Your task to perform on an android device: Search for "jbl charge 4" on newegg.com, select the first entry, and add it to the cart. Image 0: 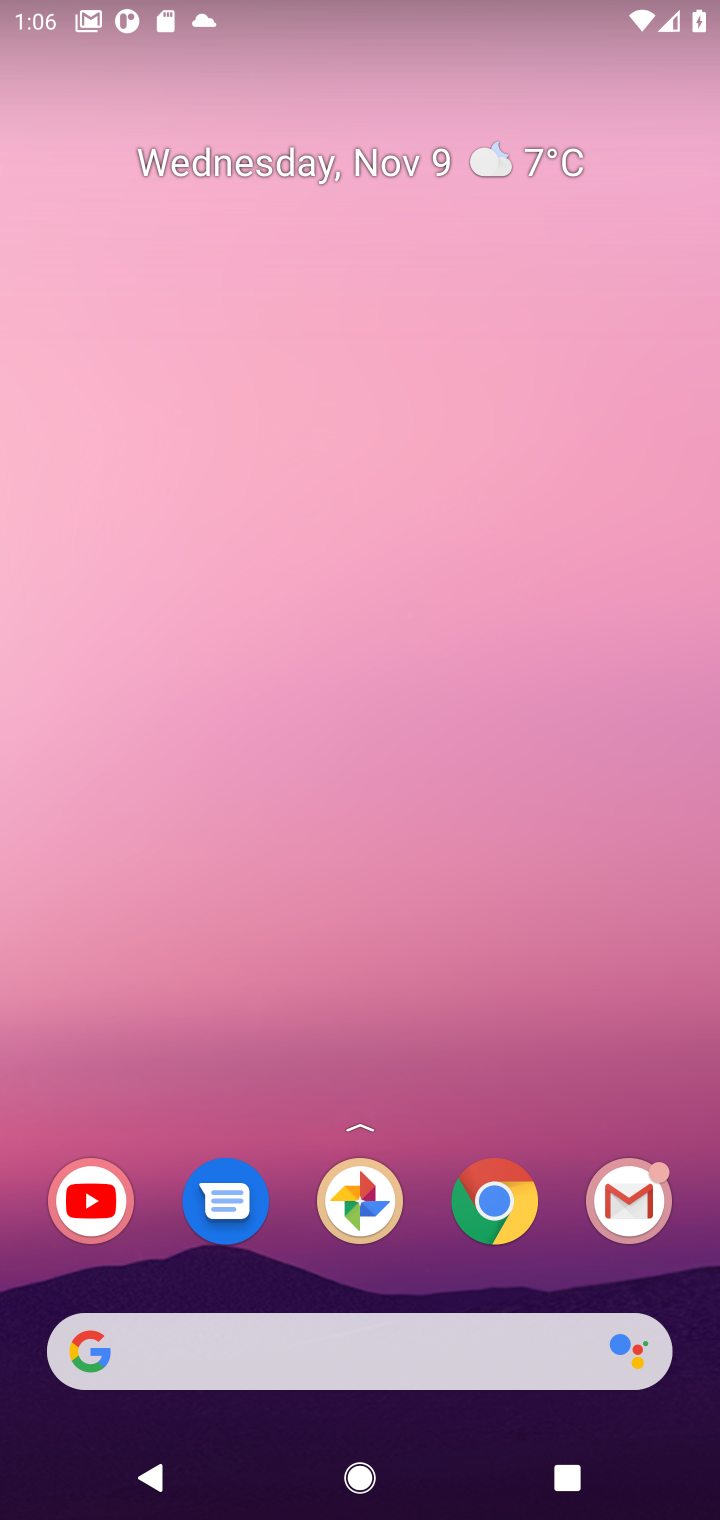
Step 0: click (276, 1343)
Your task to perform on an android device: Search for "jbl charge 4" on newegg.com, select the first entry, and add it to the cart. Image 1: 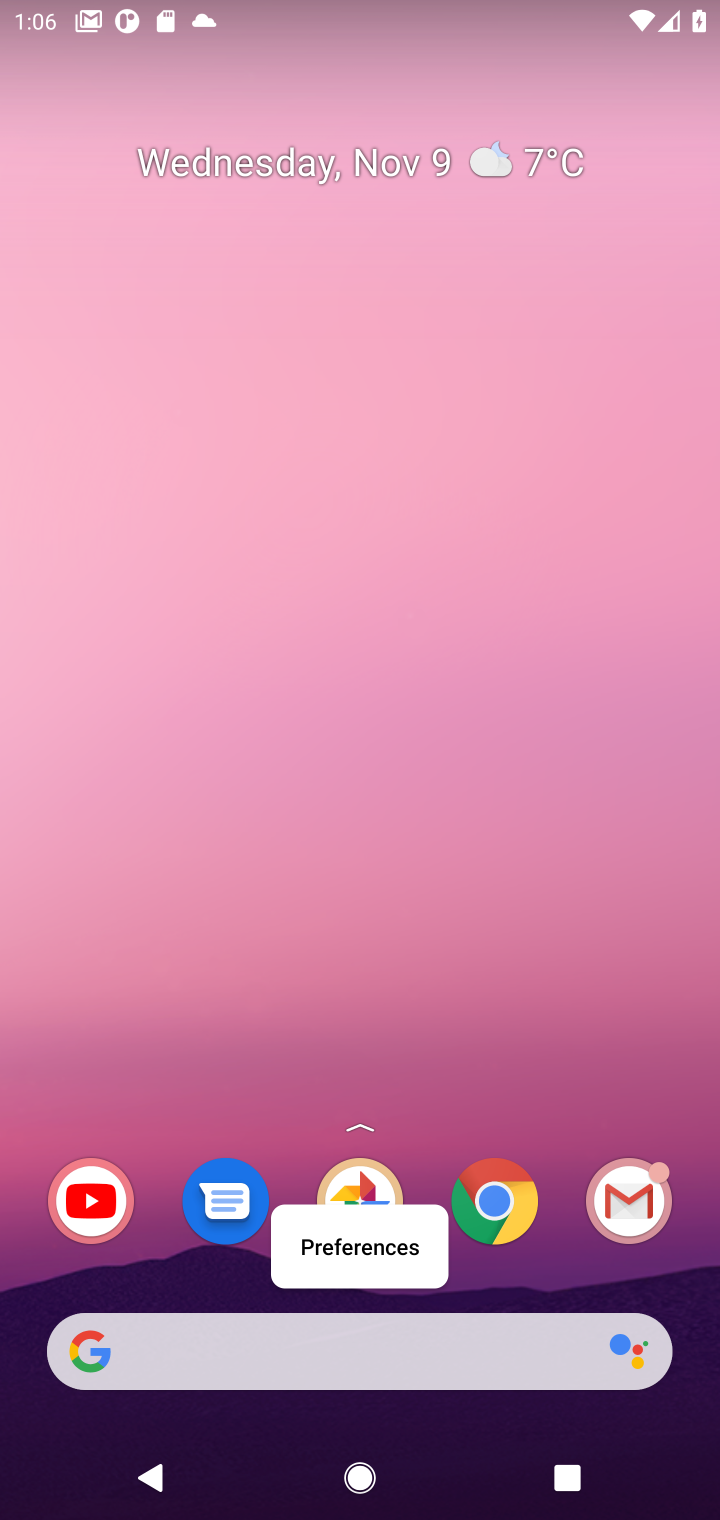
Step 1: click (312, 1343)
Your task to perform on an android device: Search for "jbl charge 4" on newegg.com, select the first entry, and add it to the cart. Image 2: 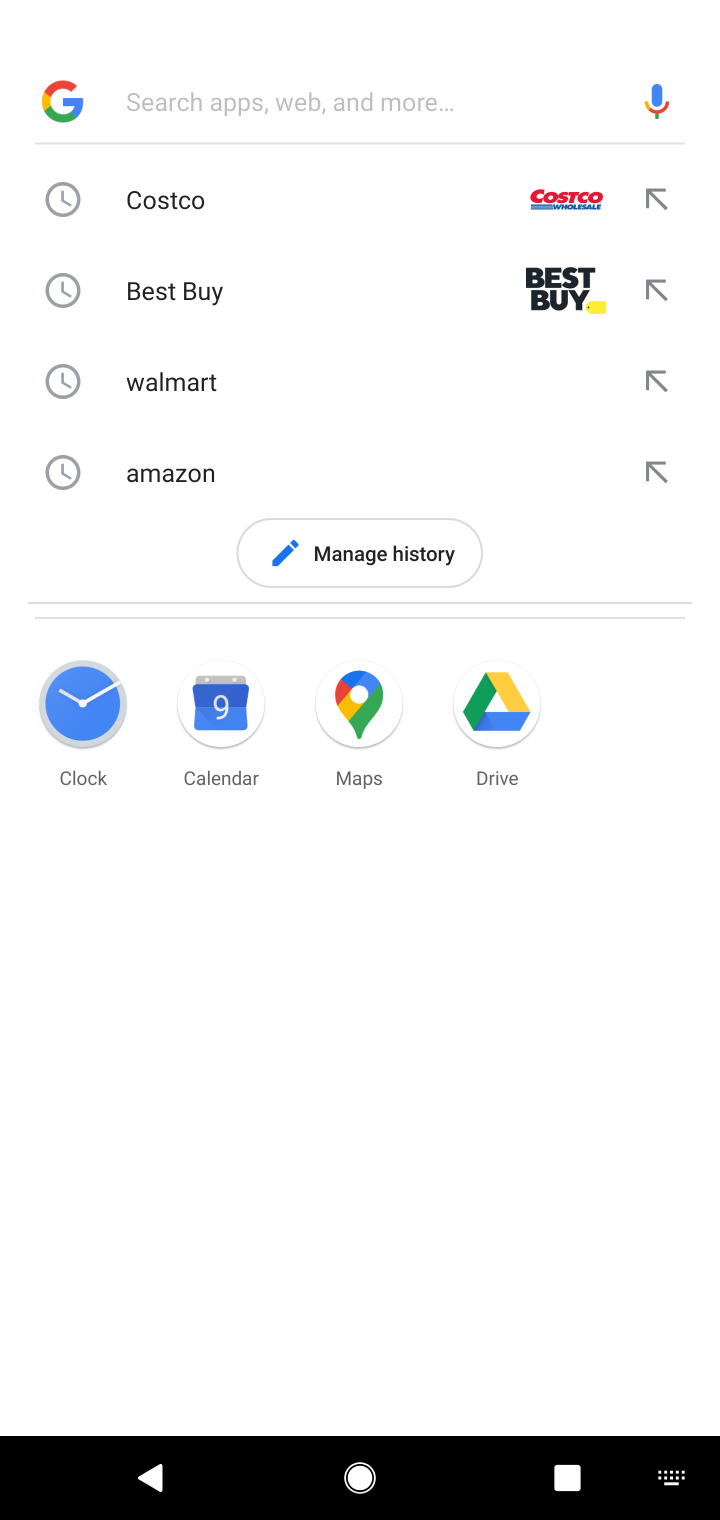
Step 2: type "newegg.com"
Your task to perform on an android device: Search for "jbl charge 4" on newegg.com, select the first entry, and add it to the cart. Image 3: 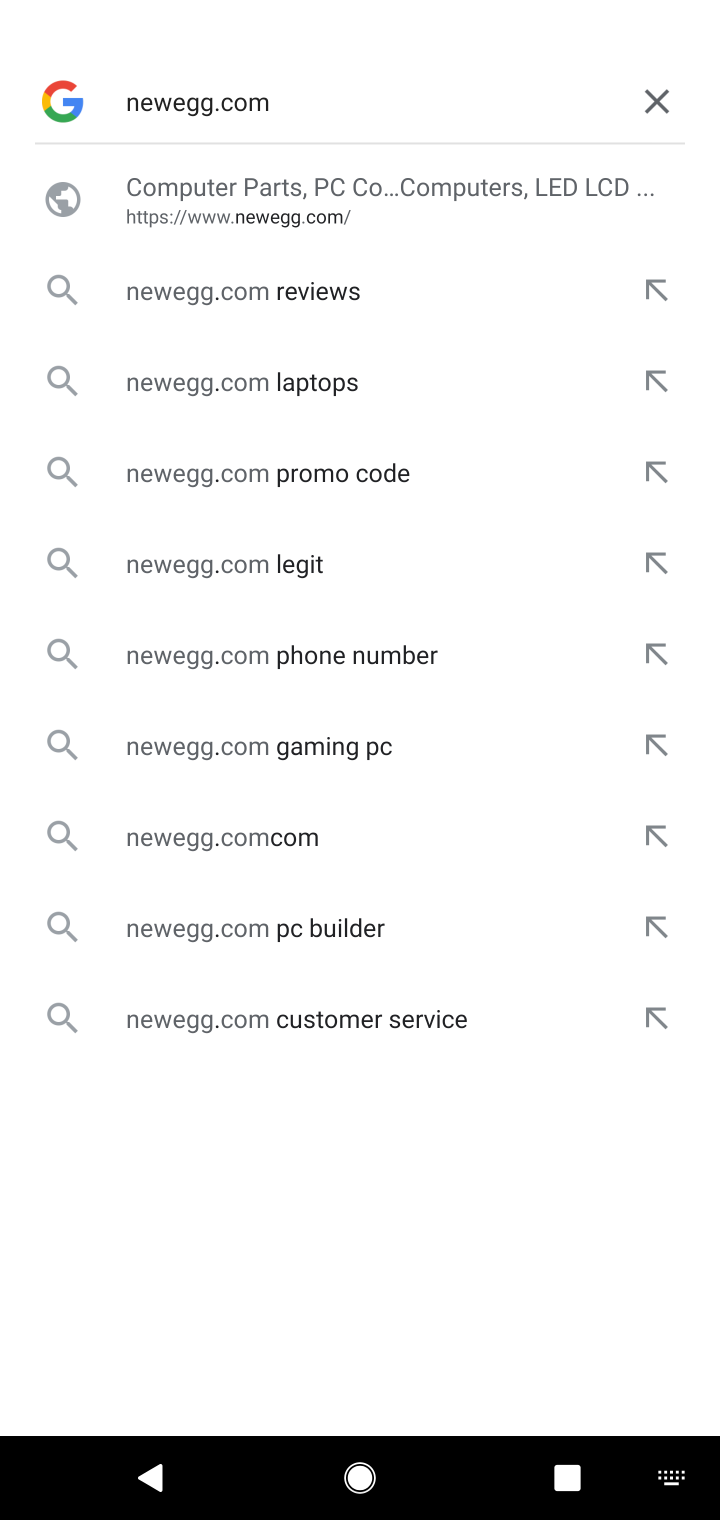
Step 3: click (276, 211)
Your task to perform on an android device: Search for "jbl charge 4" on newegg.com, select the first entry, and add it to the cart. Image 4: 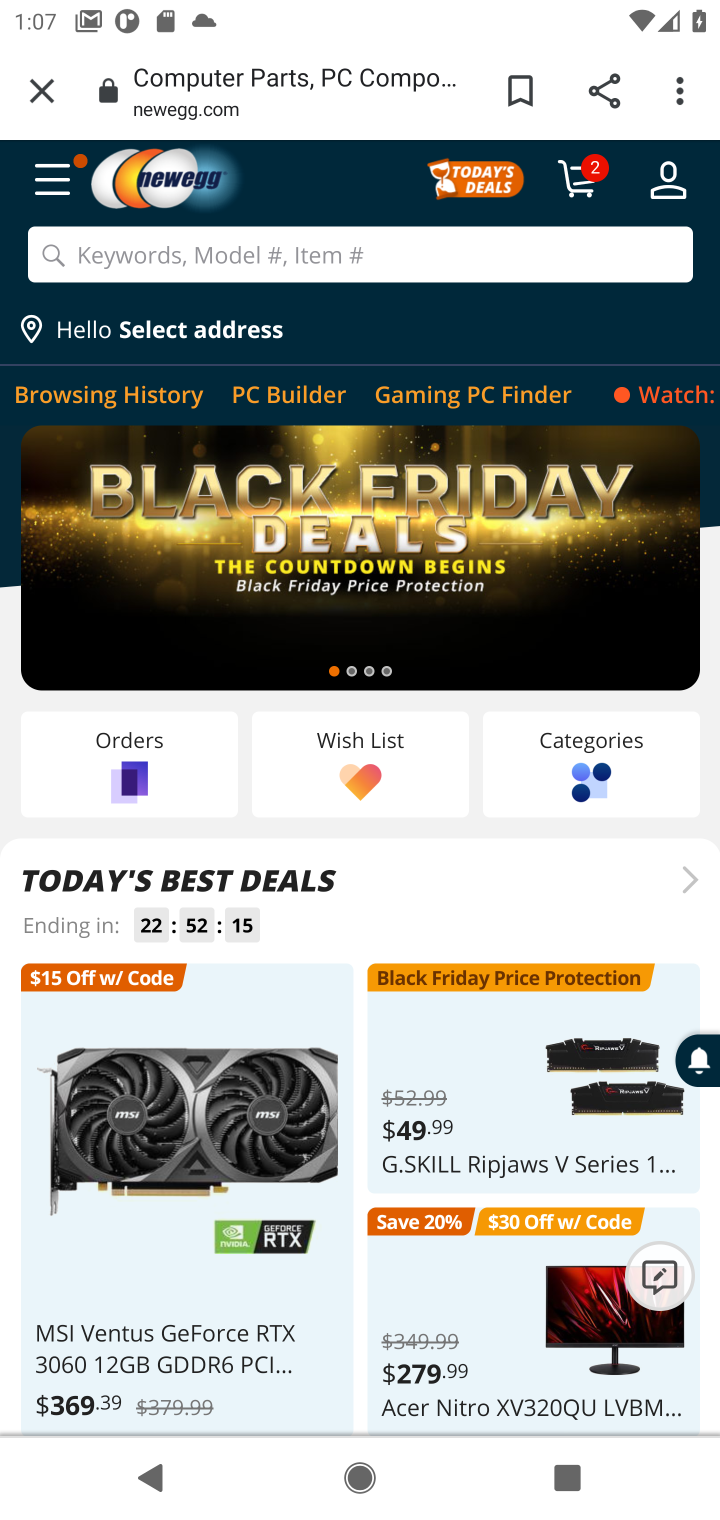
Step 4: click (272, 261)
Your task to perform on an android device: Search for "jbl charge 4" on newegg.com, select the first entry, and add it to the cart. Image 5: 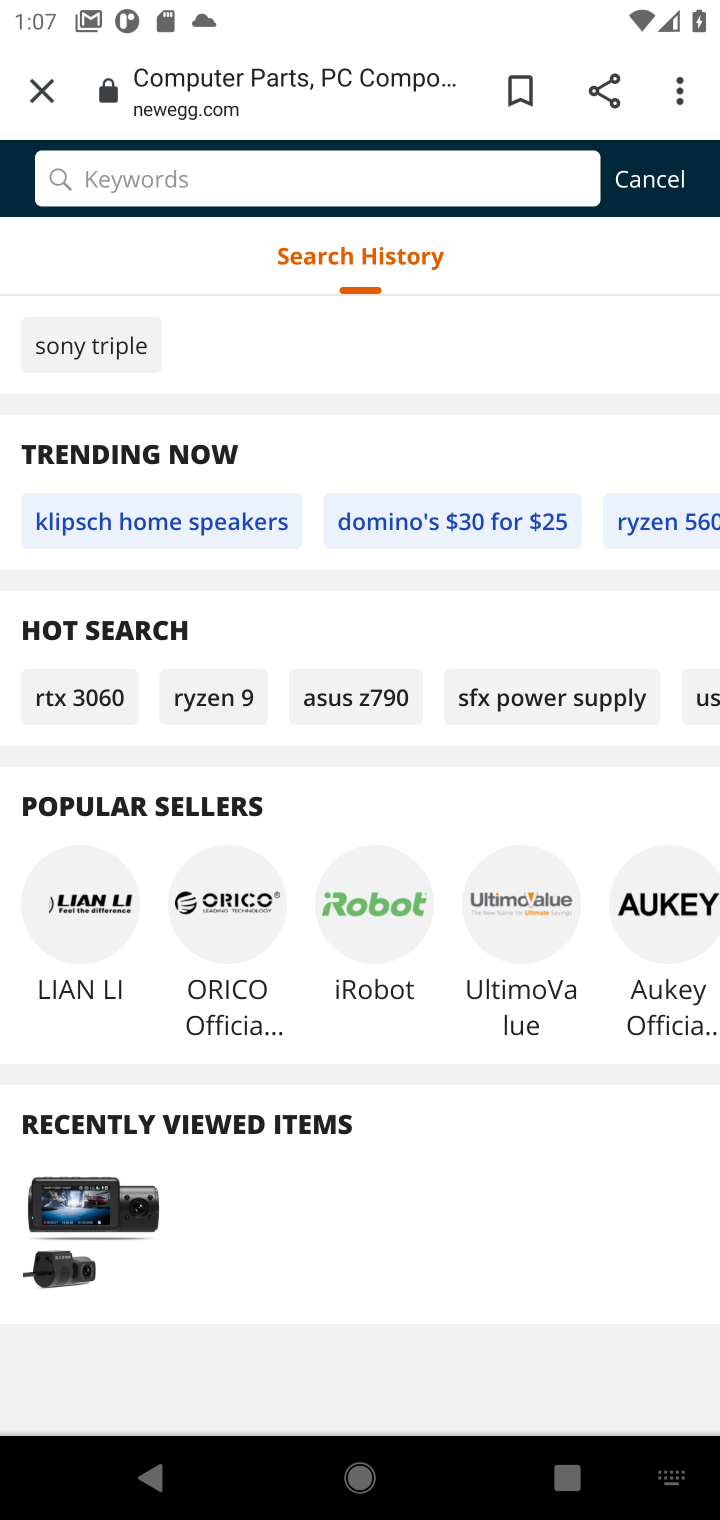
Step 5: type "jbl charge 4"
Your task to perform on an android device: Search for "jbl charge 4" on newegg.com, select the first entry, and add it to the cart. Image 6: 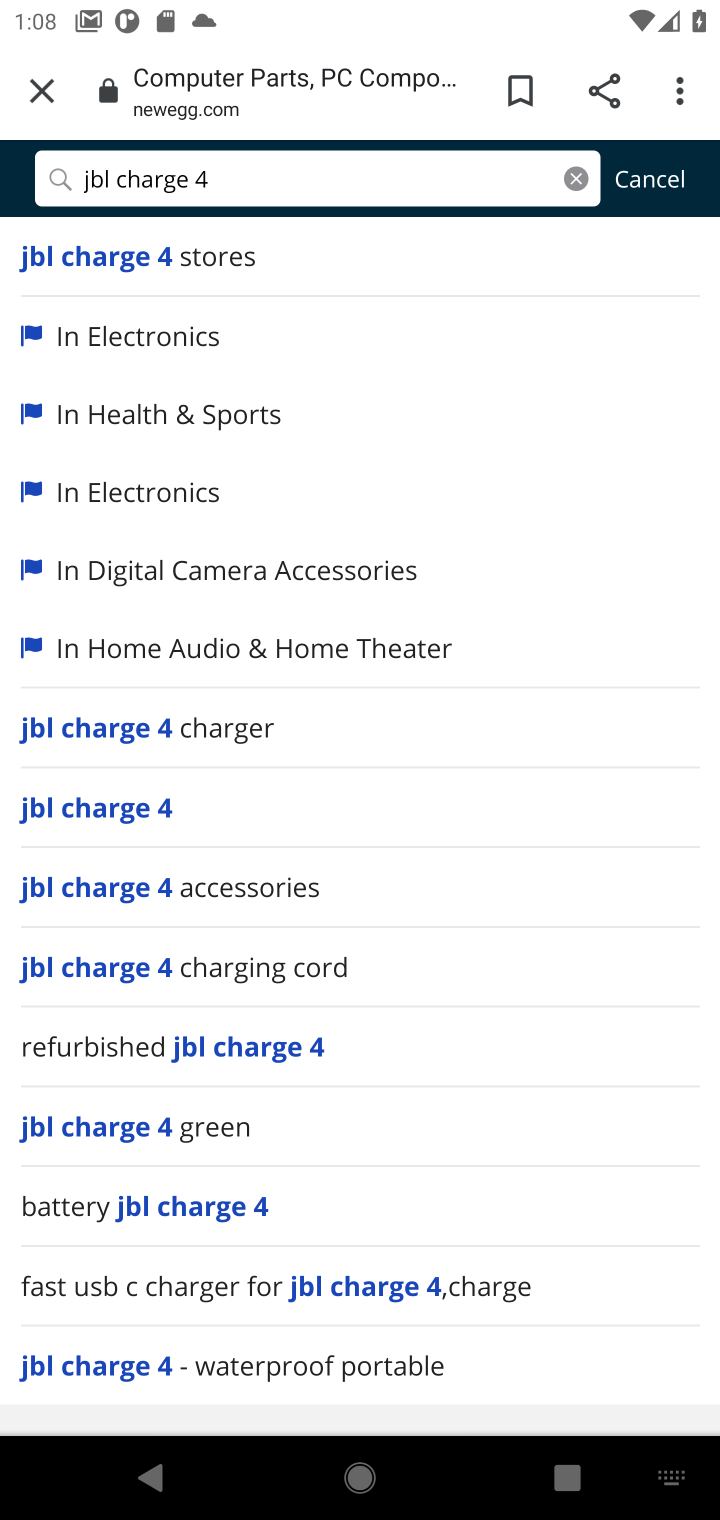
Step 6: click (131, 246)
Your task to perform on an android device: Search for "jbl charge 4" on newegg.com, select the first entry, and add it to the cart. Image 7: 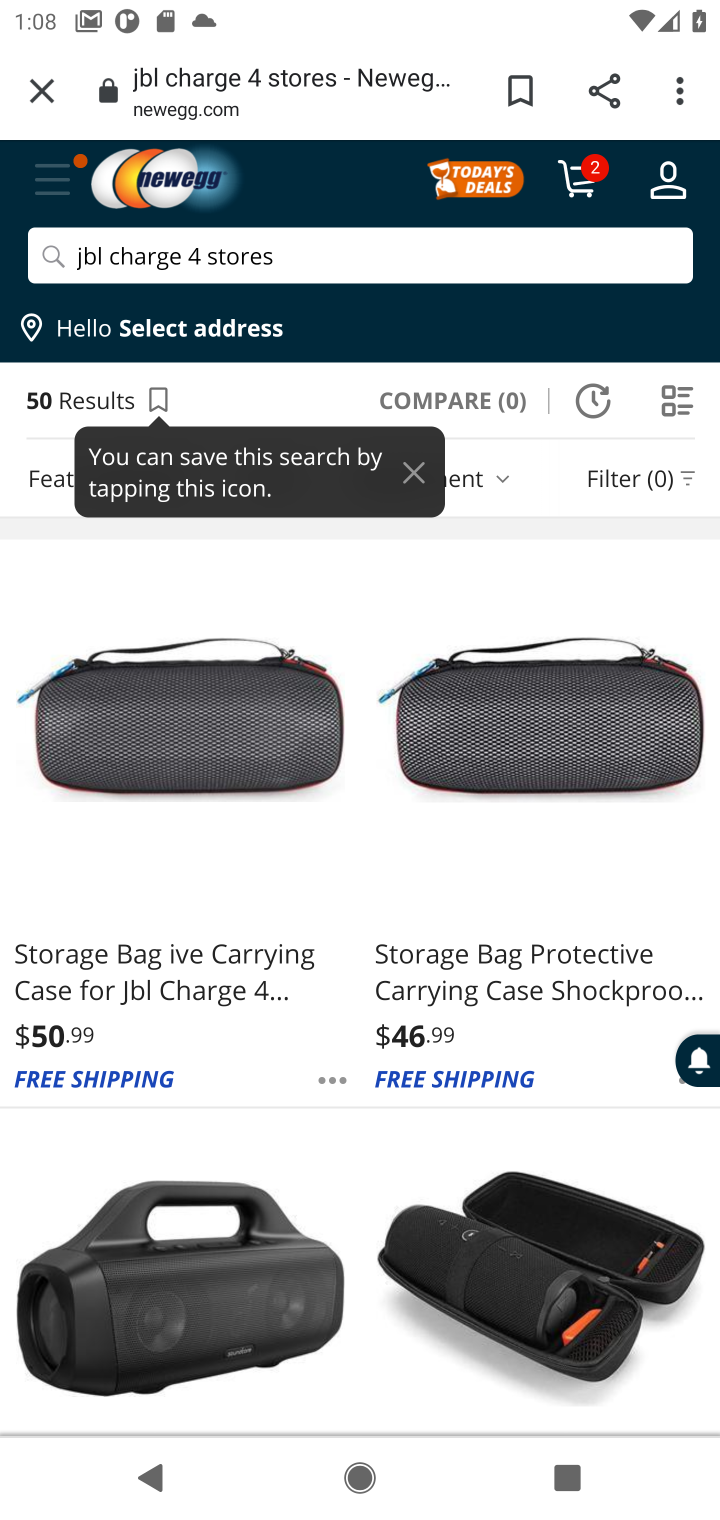
Step 7: click (222, 743)
Your task to perform on an android device: Search for "jbl charge 4" on newegg.com, select the first entry, and add it to the cart. Image 8: 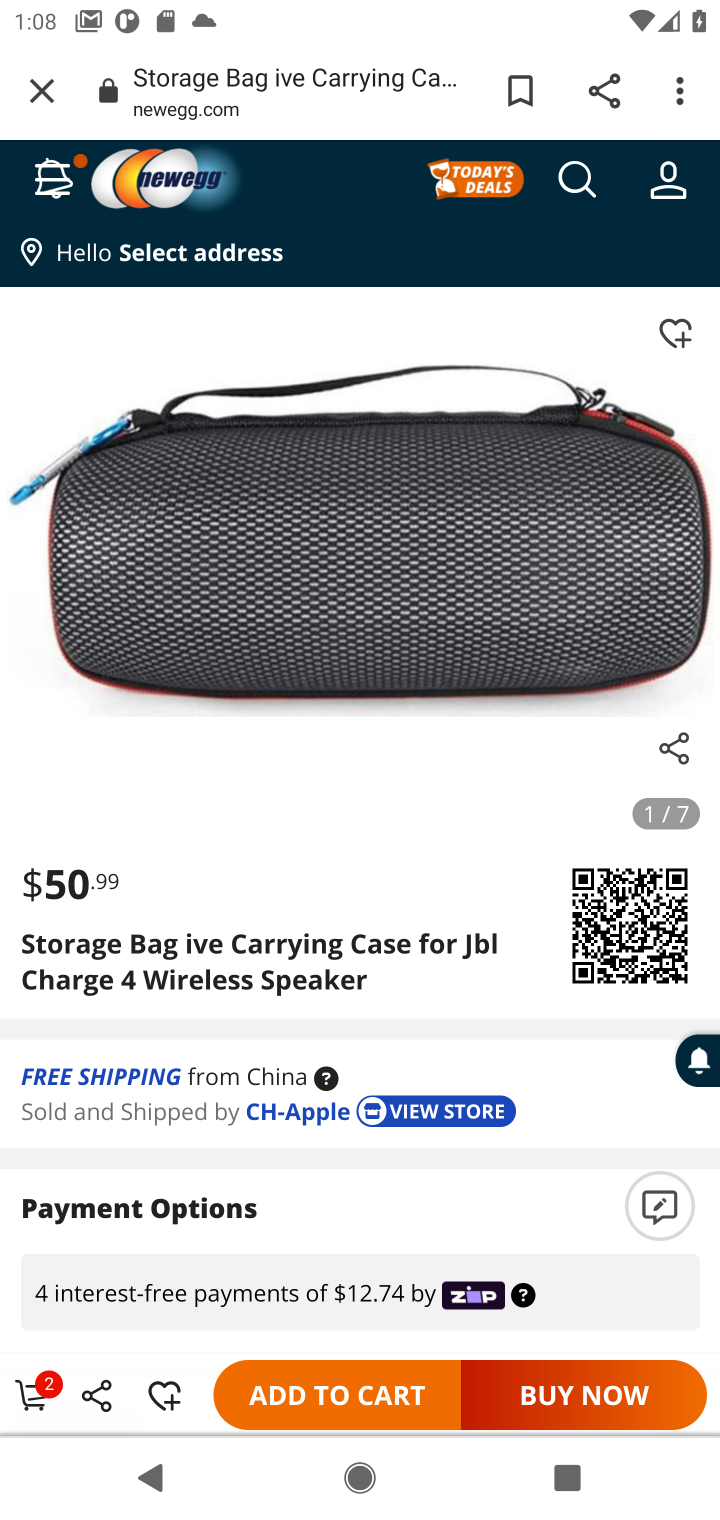
Step 8: click (350, 1396)
Your task to perform on an android device: Search for "jbl charge 4" on newegg.com, select the first entry, and add it to the cart. Image 9: 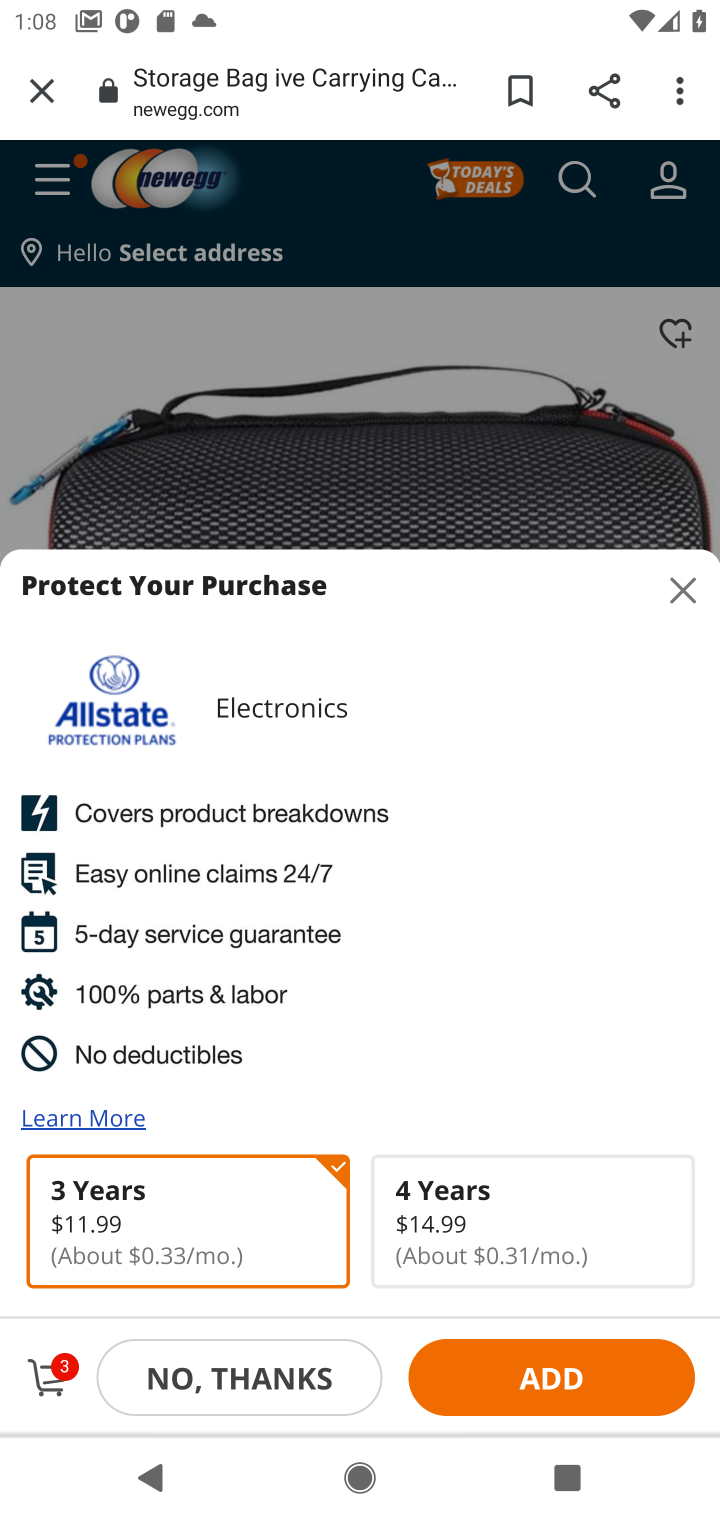
Step 9: click (277, 1348)
Your task to perform on an android device: Search for "jbl charge 4" on newegg.com, select the first entry, and add it to the cart. Image 10: 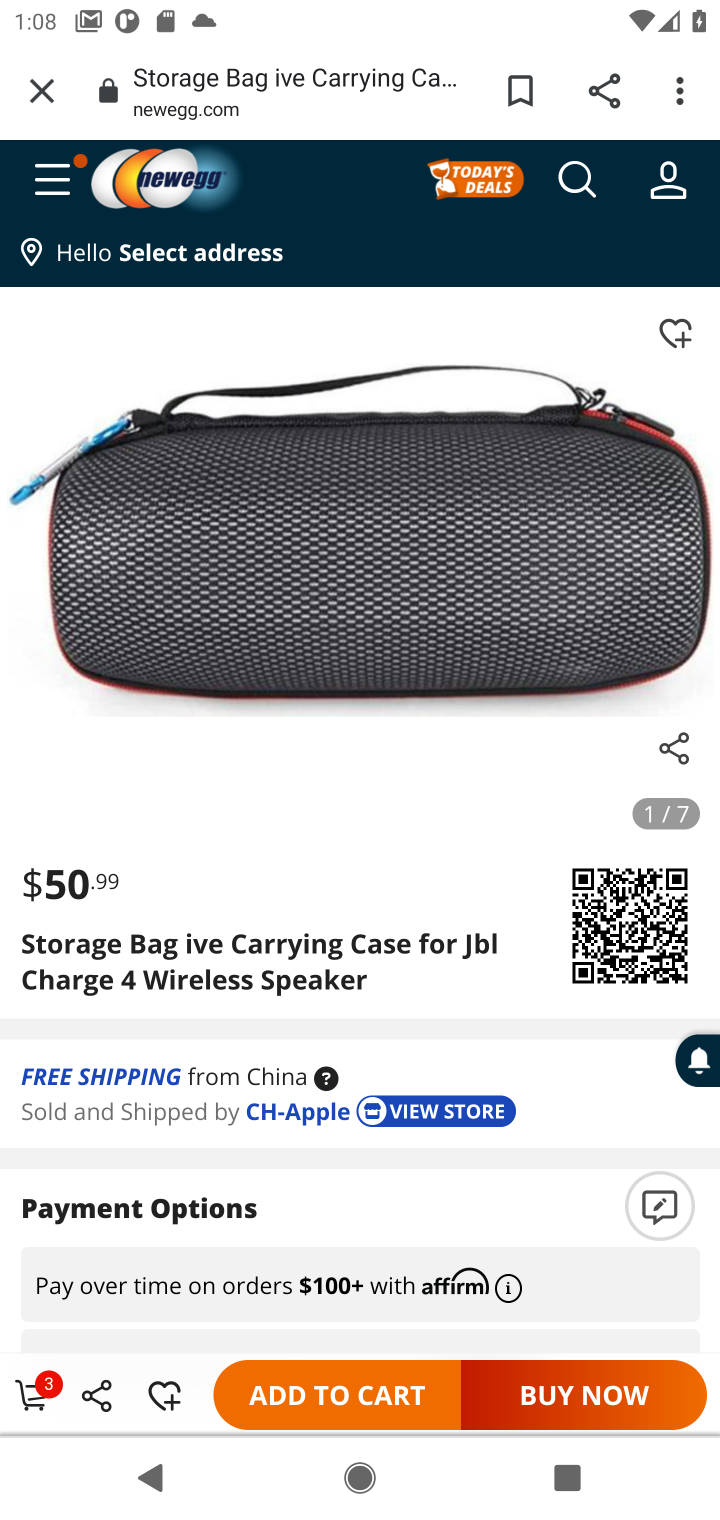
Step 10: task complete